Your task to perform on an android device: Open eBay Image 0: 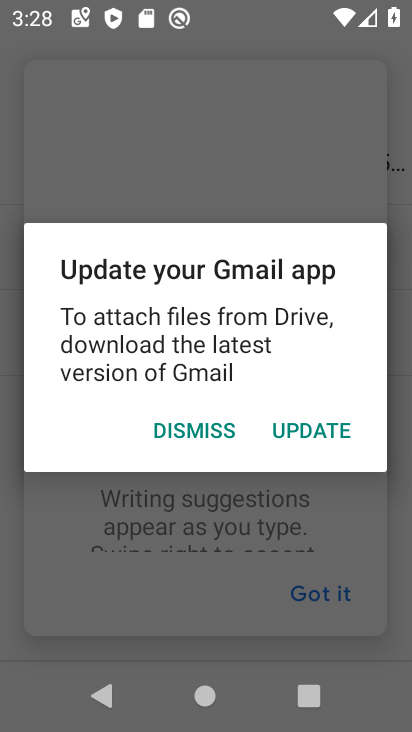
Step 0: press home button
Your task to perform on an android device: Open eBay Image 1: 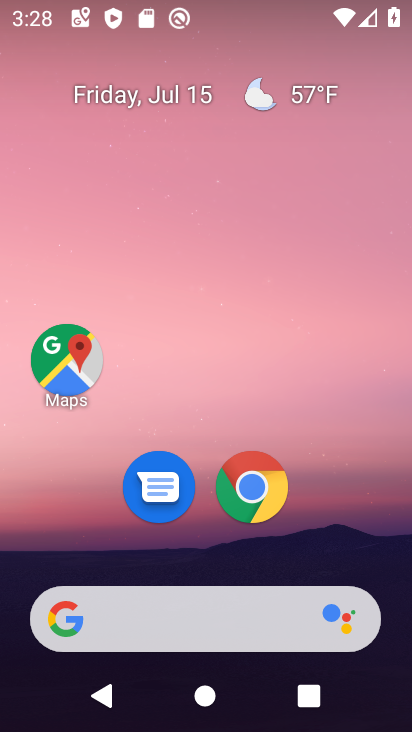
Step 1: drag from (253, 639) to (308, 217)
Your task to perform on an android device: Open eBay Image 2: 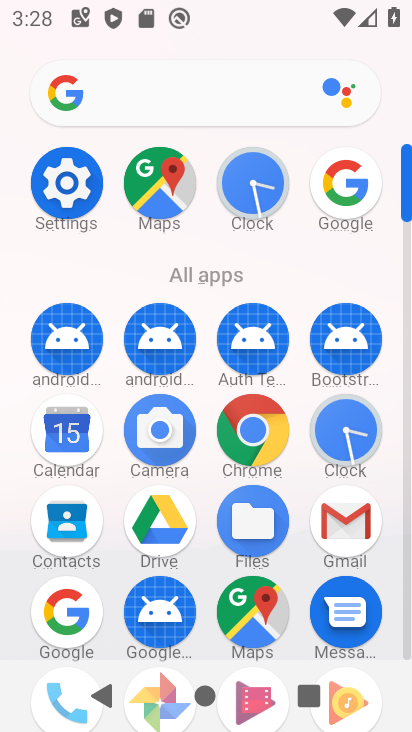
Step 2: click (246, 442)
Your task to perform on an android device: Open eBay Image 3: 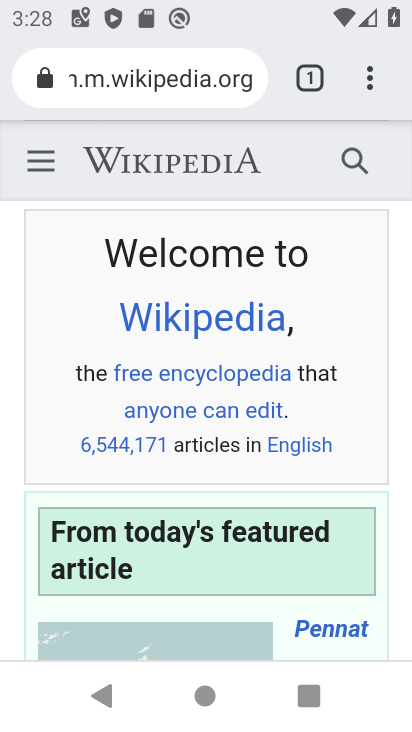
Step 3: click (175, 87)
Your task to perform on an android device: Open eBay Image 4: 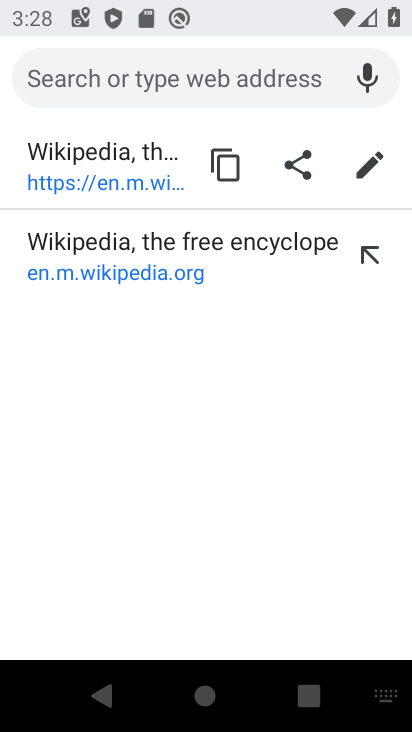
Step 4: type "ebay"
Your task to perform on an android device: Open eBay Image 5: 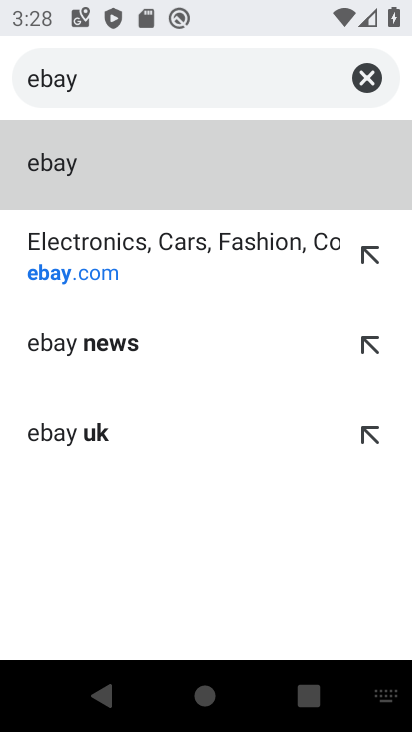
Step 5: click (230, 255)
Your task to perform on an android device: Open eBay Image 6: 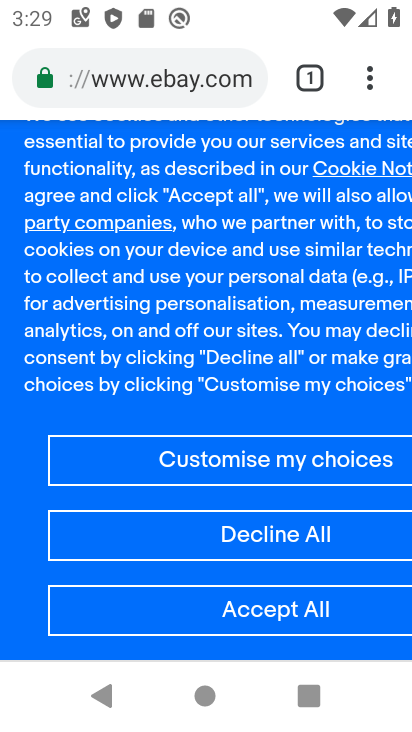
Step 6: task complete